Your task to perform on an android device: What's the news this evening? Image 0: 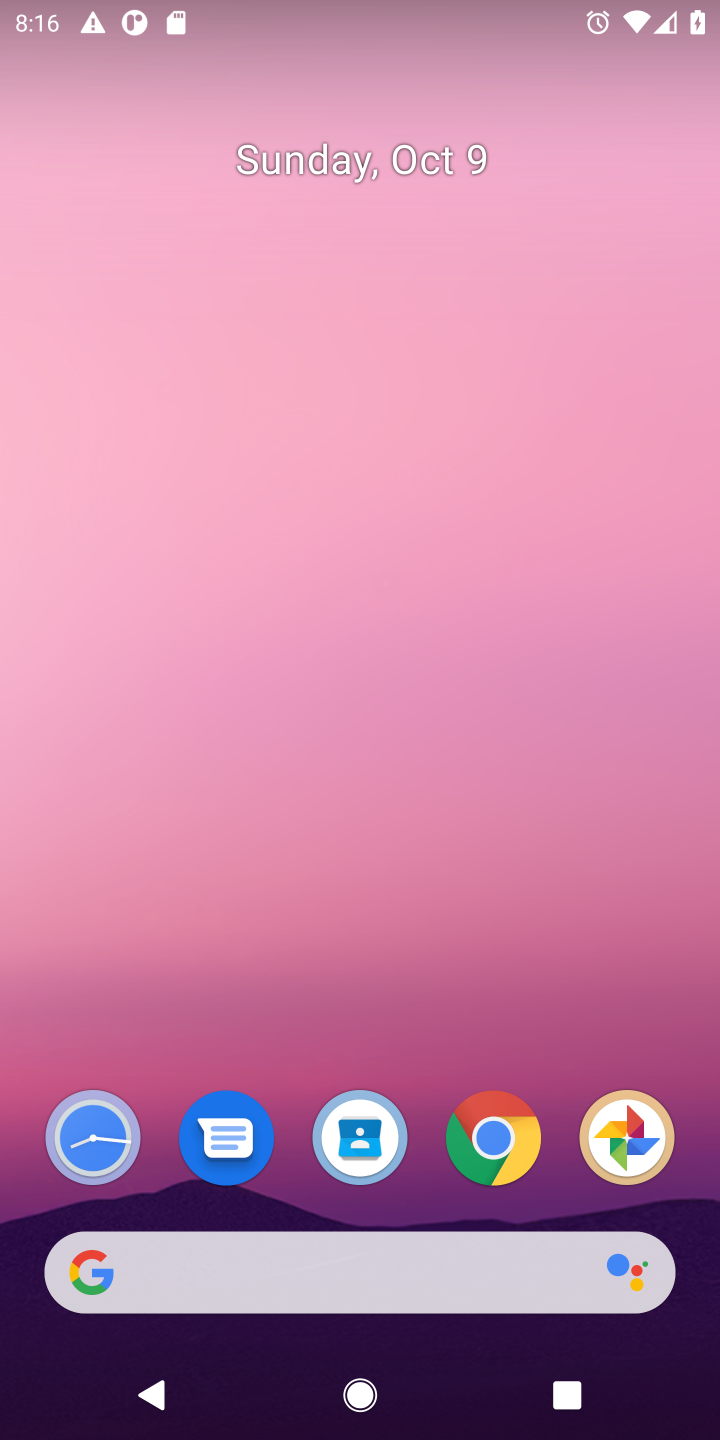
Step 0: drag from (337, 1100) to (337, 328)
Your task to perform on an android device: What's the news this evening? Image 1: 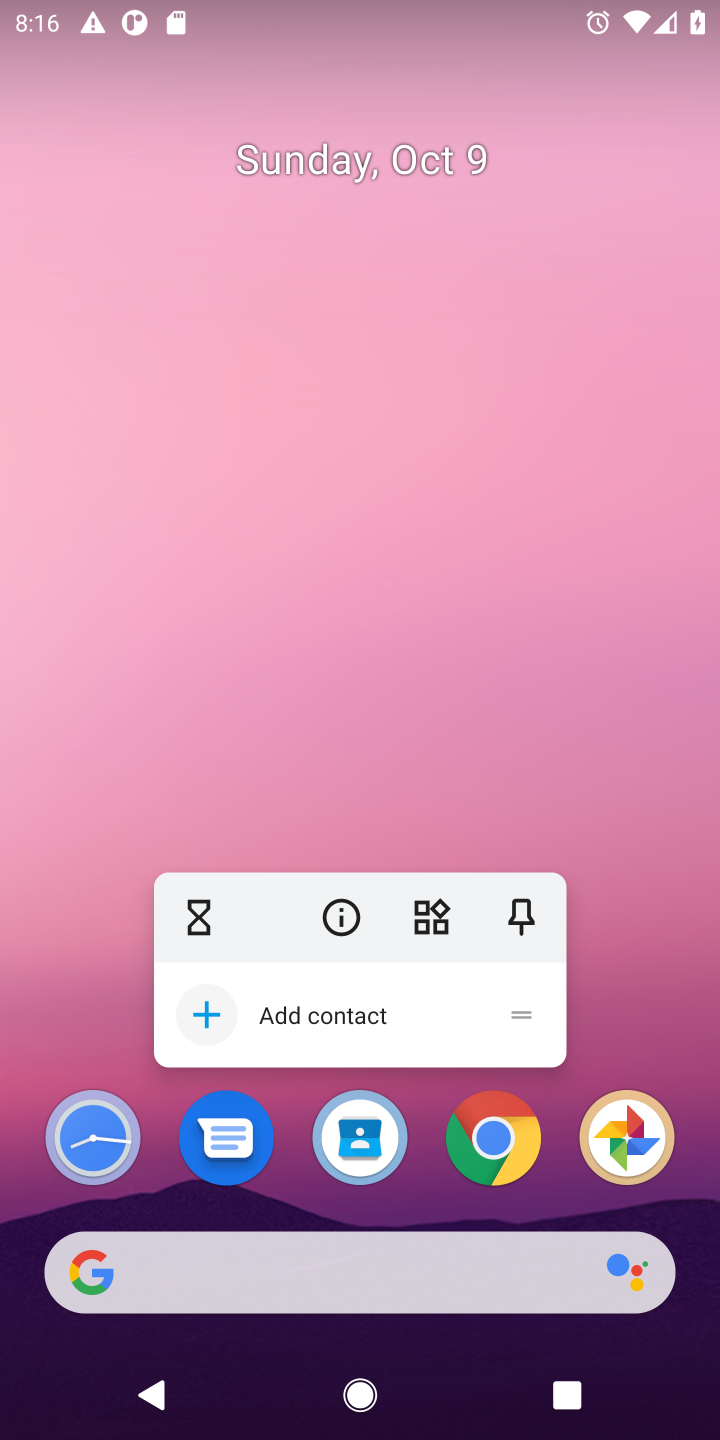
Step 1: click (244, 575)
Your task to perform on an android device: What's the news this evening? Image 2: 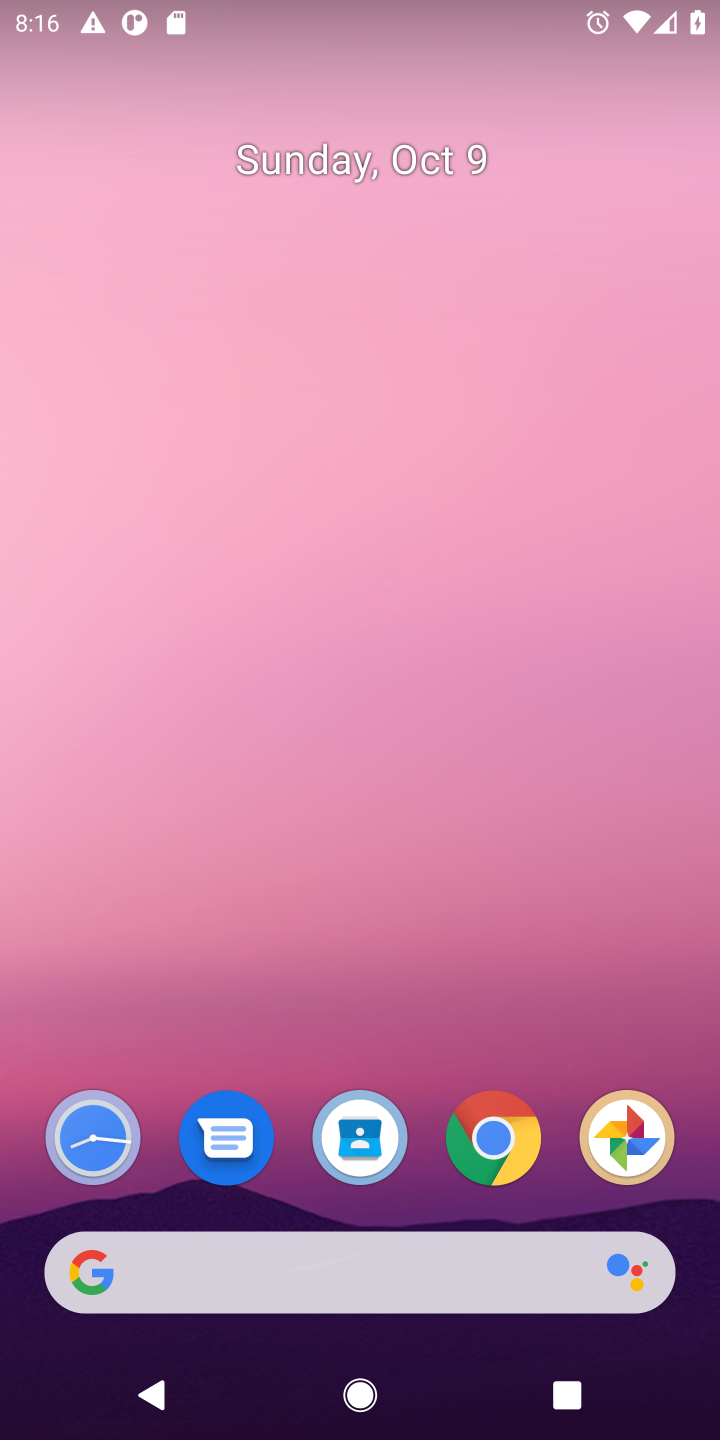
Step 2: drag from (316, 801) to (314, 326)
Your task to perform on an android device: What's the news this evening? Image 3: 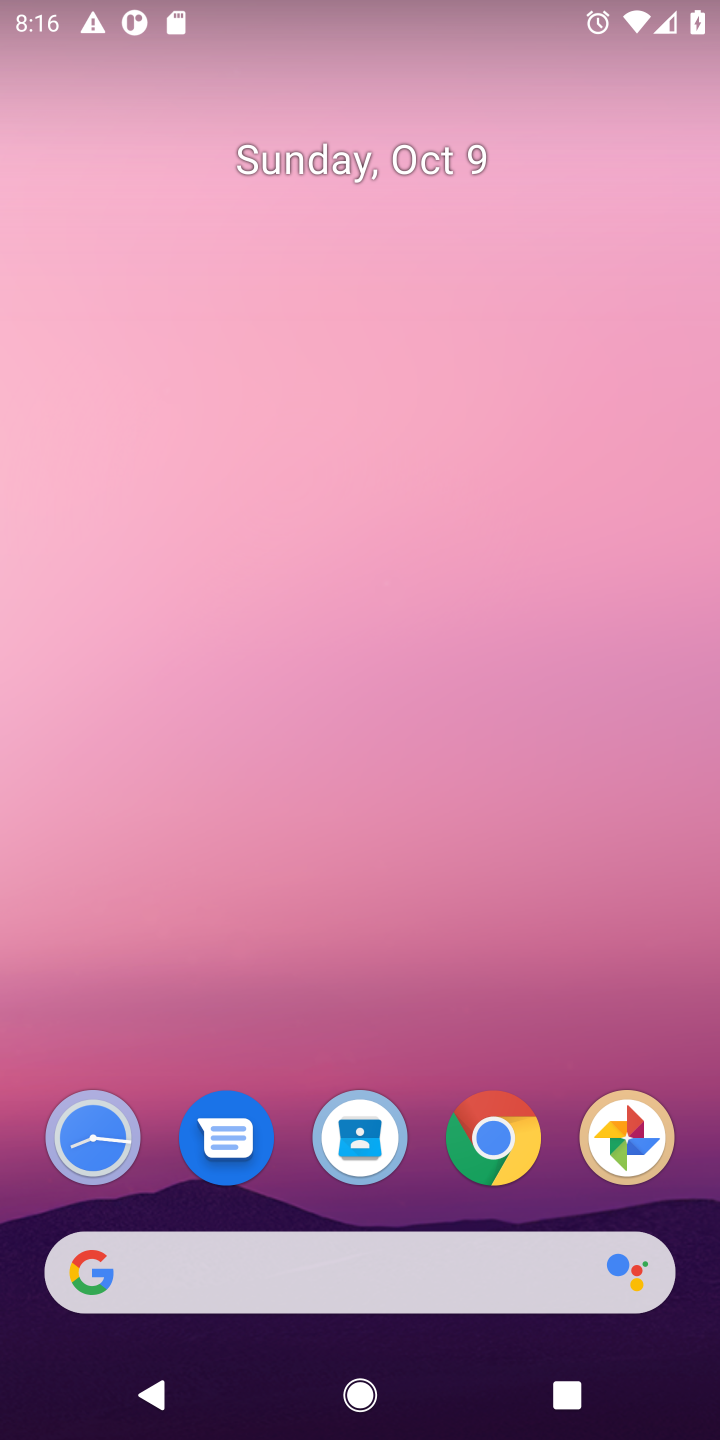
Step 3: drag from (291, 1209) to (291, 561)
Your task to perform on an android device: What's the news this evening? Image 4: 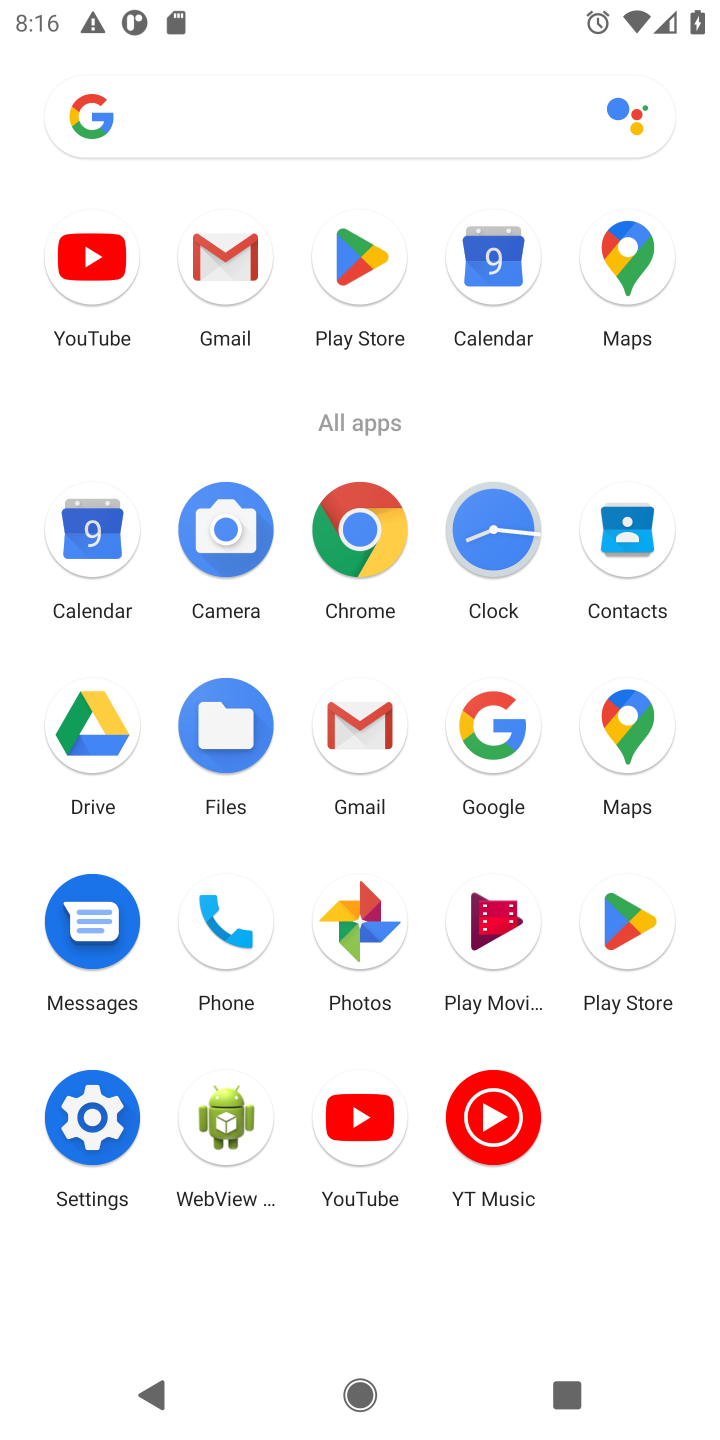
Step 4: click (486, 719)
Your task to perform on an android device: What's the news this evening? Image 5: 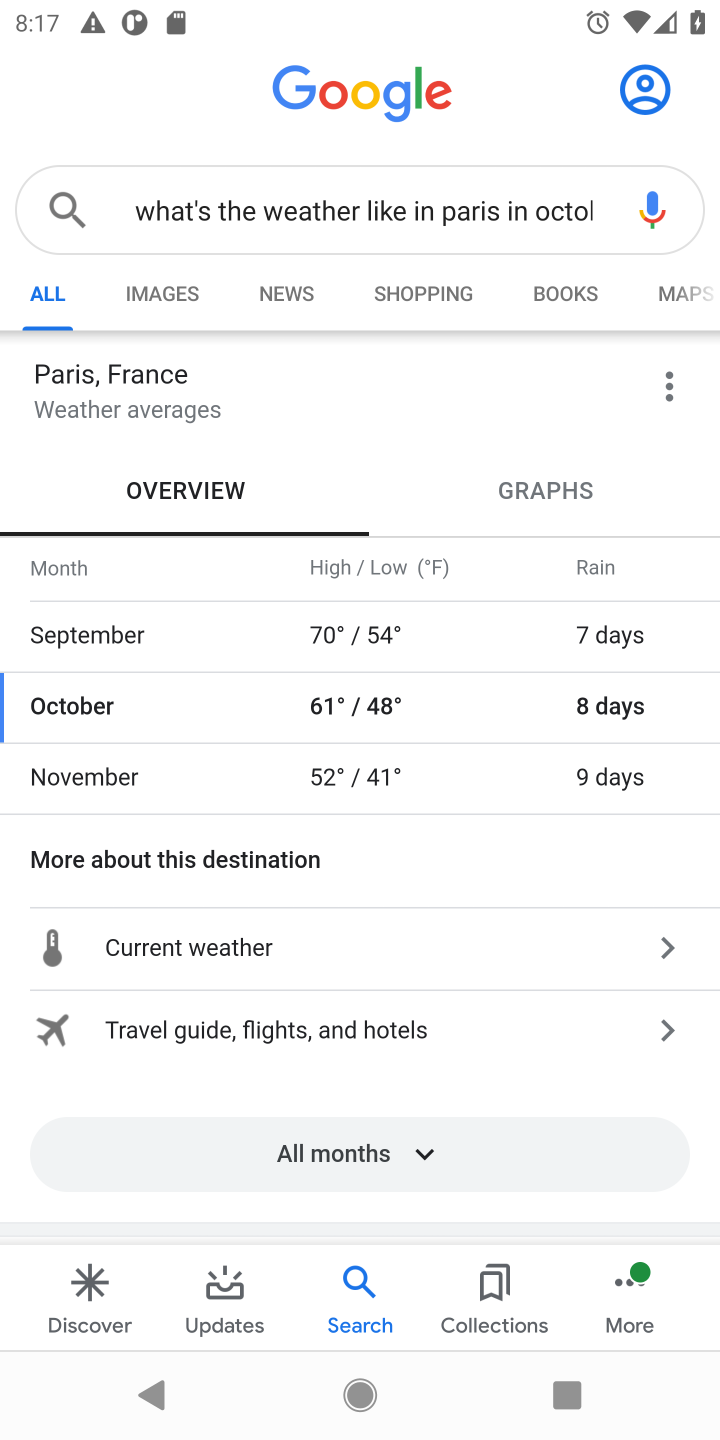
Step 5: click (455, 204)
Your task to perform on an android device: What's the news this evening? Image 6: 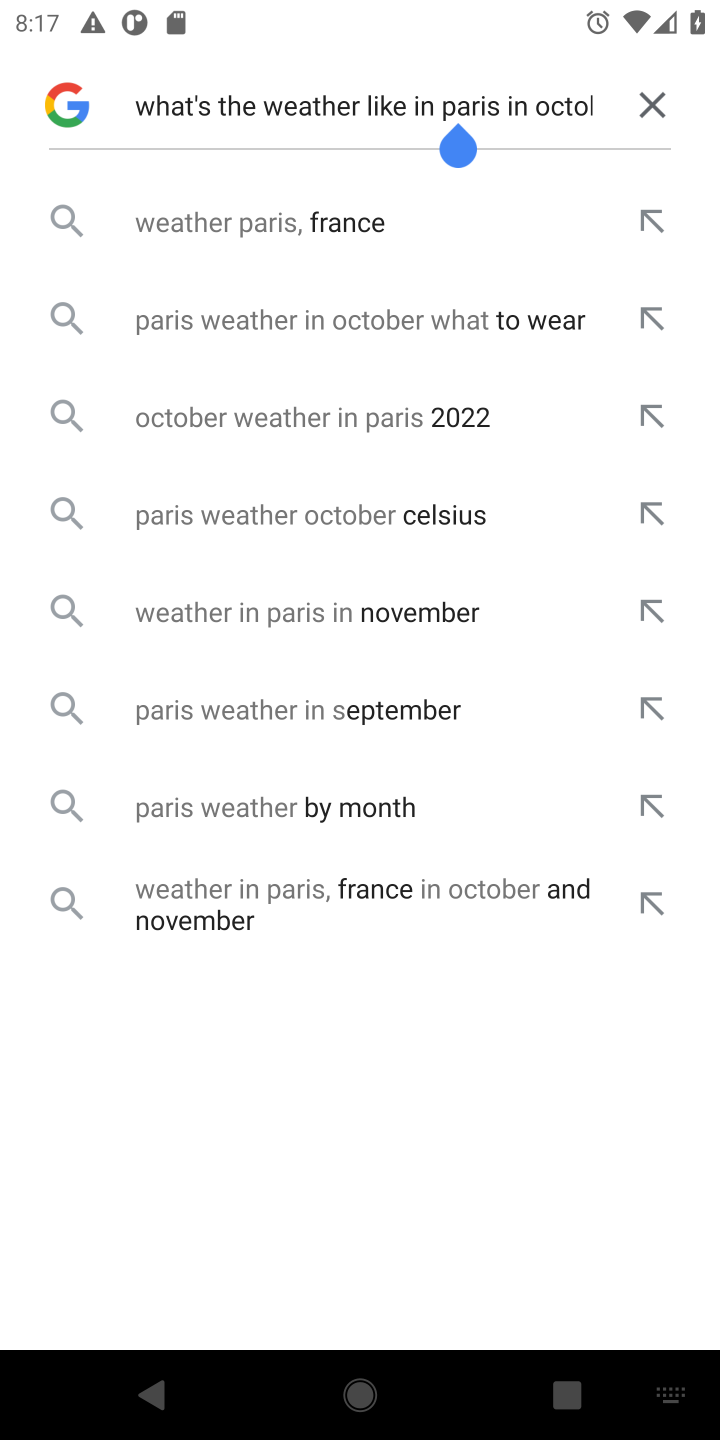
Step 6: click (646, 99)
Your task to perform on an android device: What's the news this evening? Image 7: 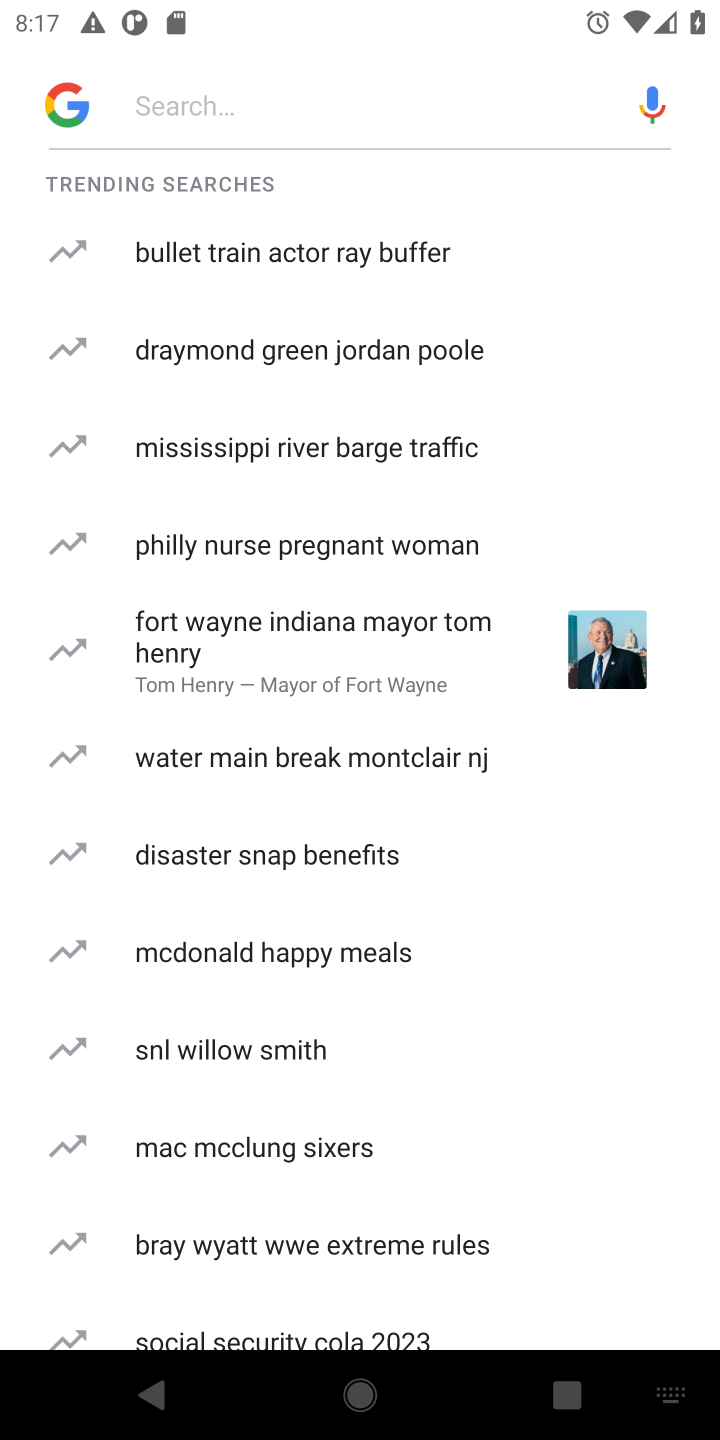
Step 7: click (312, 82)
Your task to perform on an android device: What's the news this evening? Image 8: 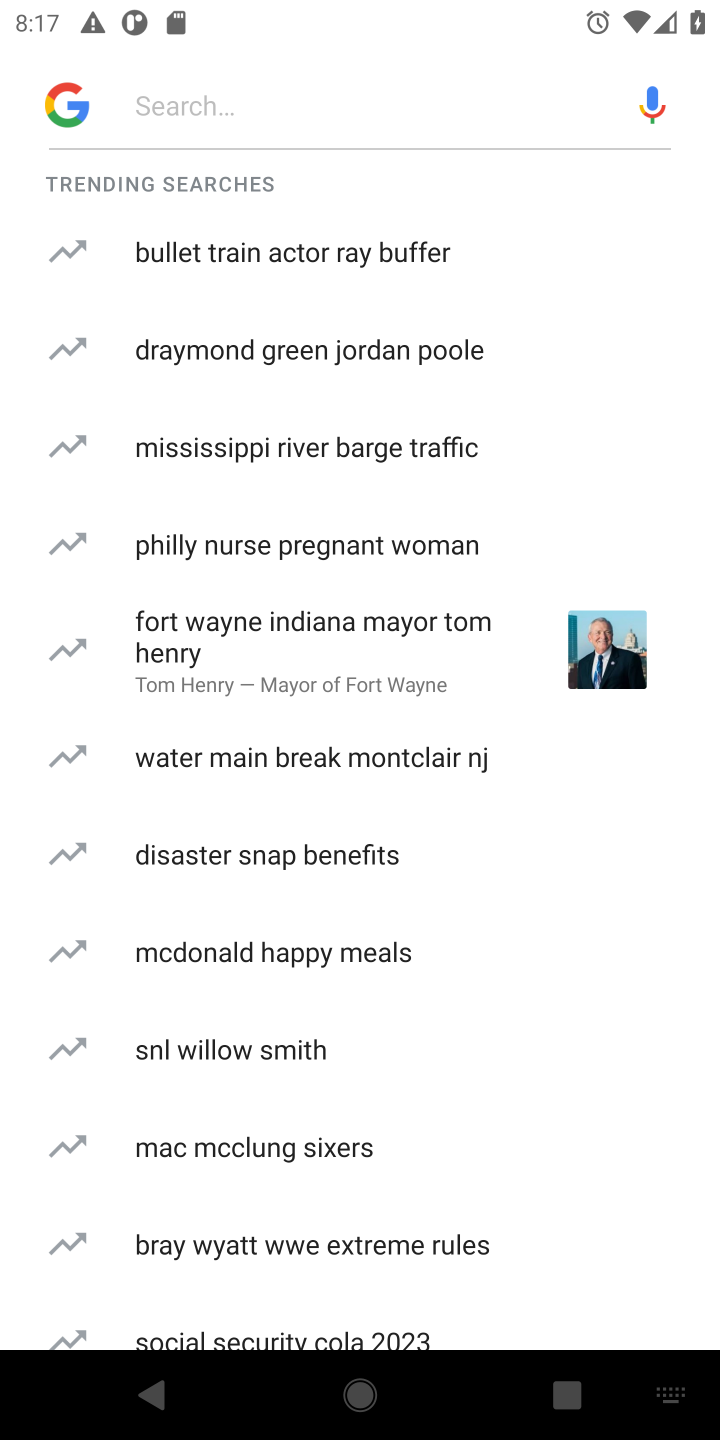
Step 8: type "What's the news this evening? "
Your task to perform on an android device: What's the news this evening? Image 9: 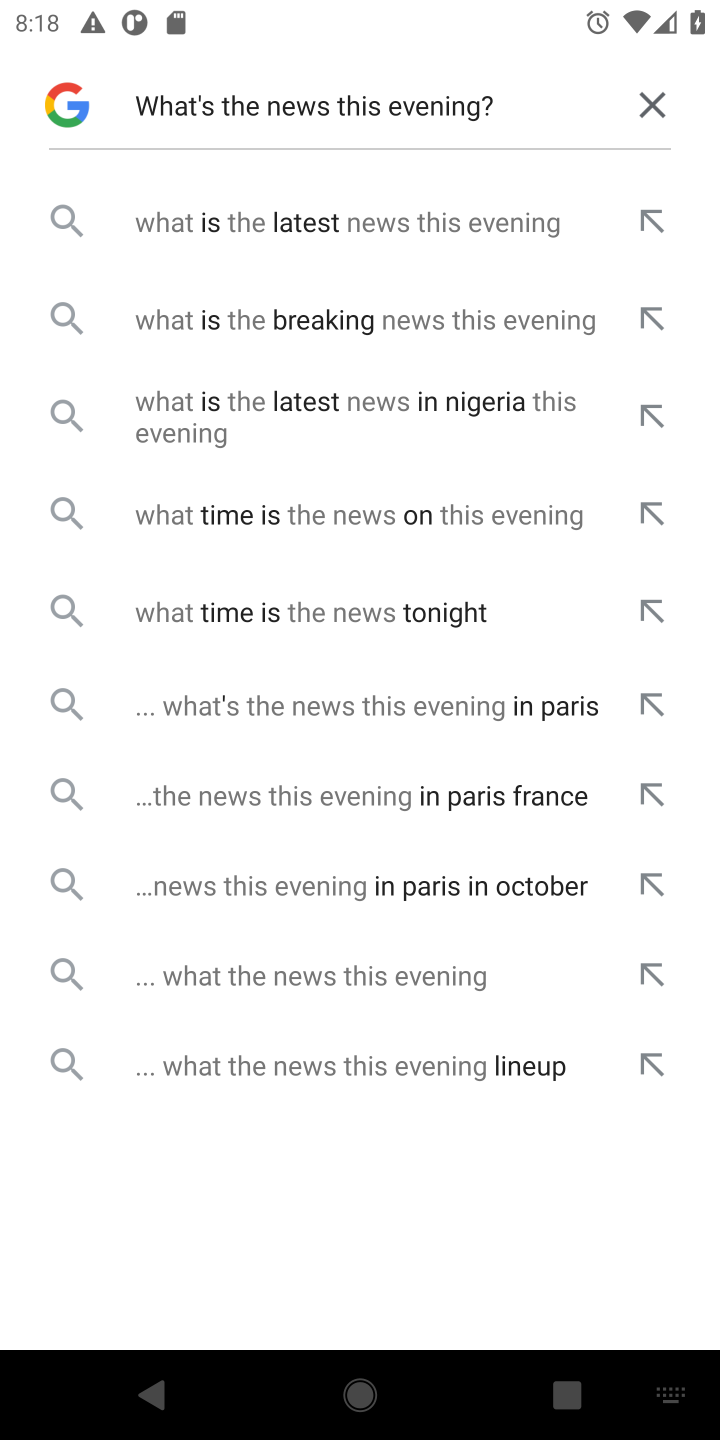
Step 9: click (329, 208)
Your task to perform on an android device: What's the news this evening? Image 10: 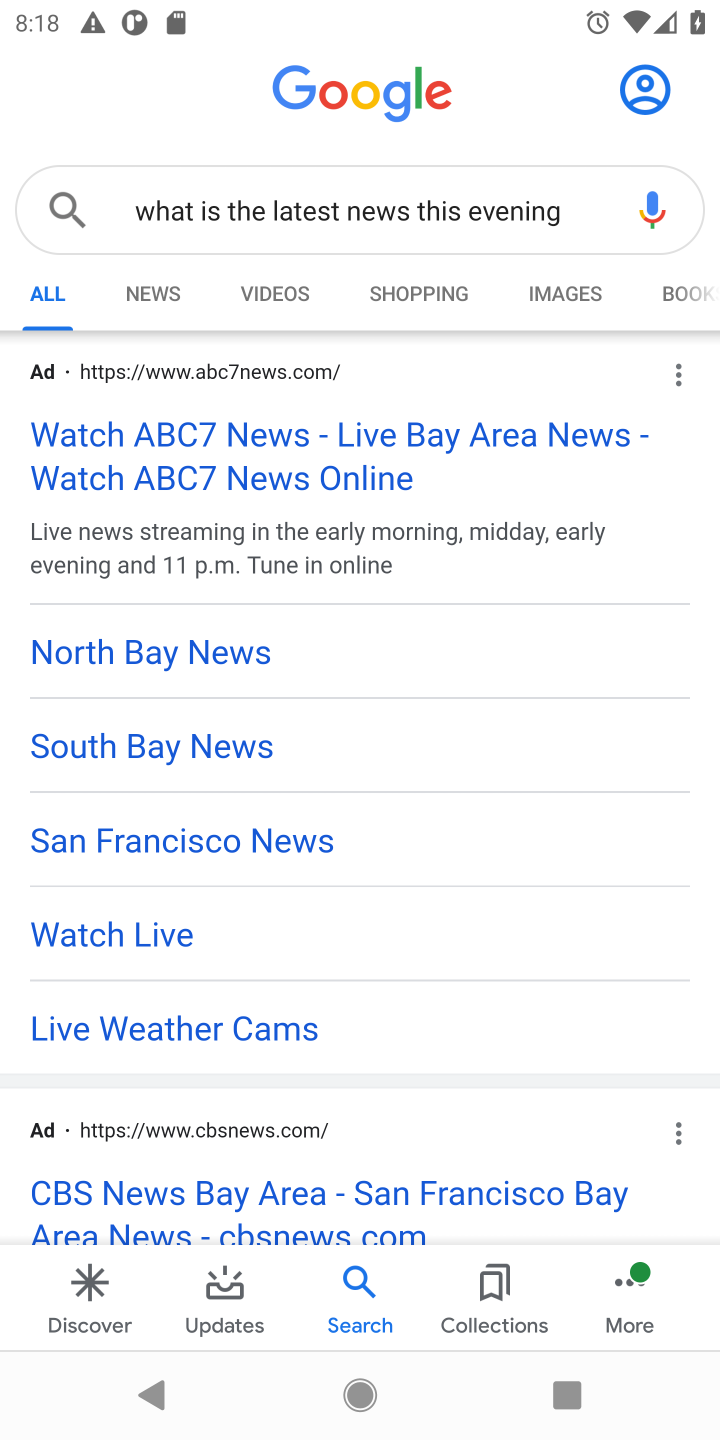
Step 10: click (390, 436)
Your task to perform on an android device: What's the news this evening? Image 11: 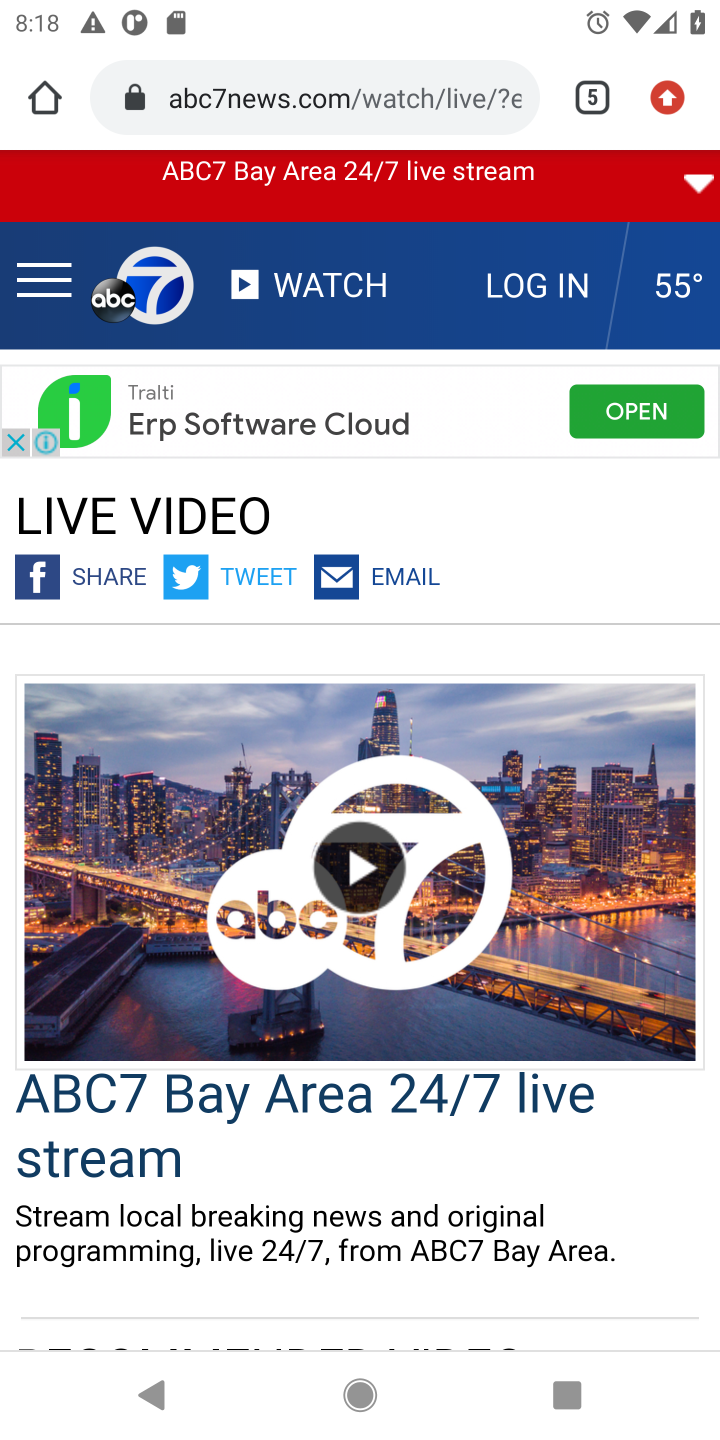
Step 11: task complete